Your task to perform on an android device: What's the weather today? Image 0: 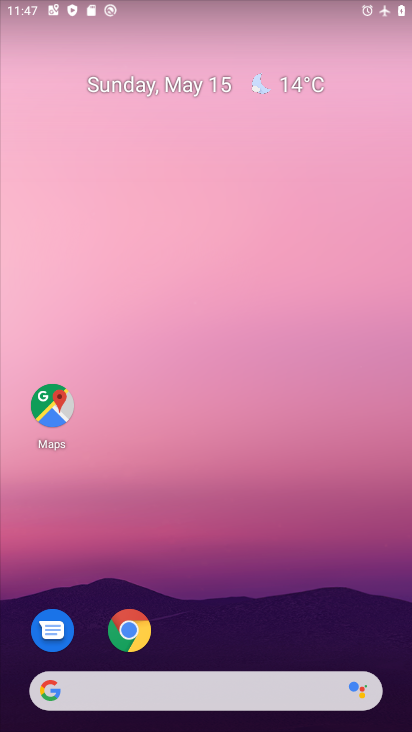
Step 0: click (256, 81)
Your task to perform on an android device: What's the weather today? Image 1: 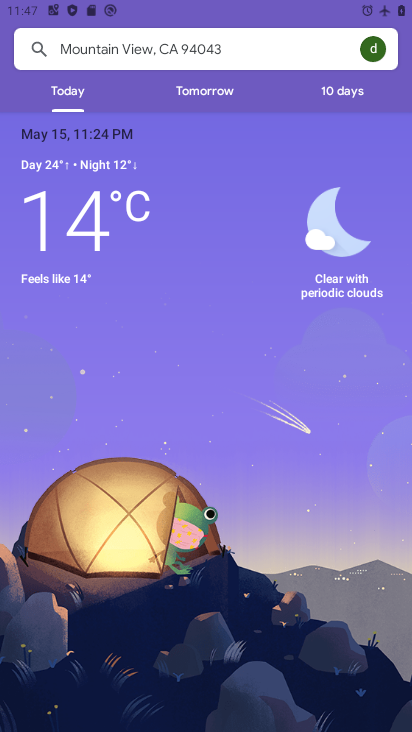
Step 1: task complete